Your task to perform on an android device: find snoozed emails in the gmail app Image 0: 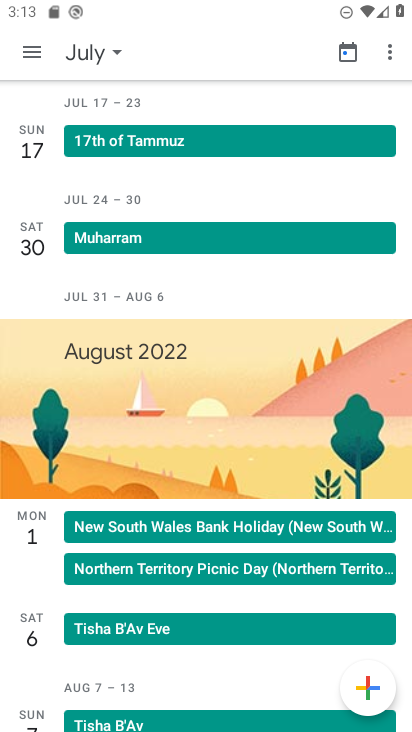
Step 0: press home button
Your task to perform on an android device: find snoozed emails in the gmail app Image 1: 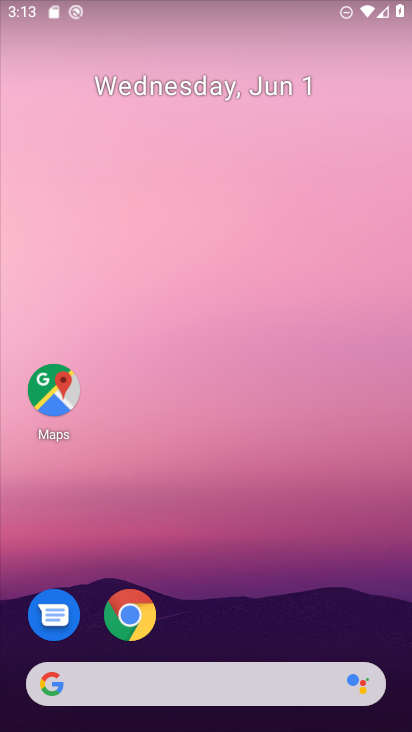
Step 1: drag from (228, 637) to (253, 74)
Your task to perform on an android device: find snoozed emails in the gmail app Image 2: 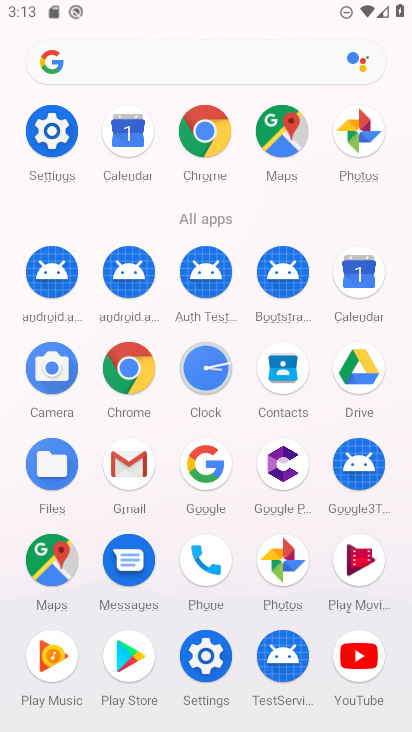
Step 2: click (129, 454)
Your task to perform on an android device: find snoozed emails in the gmail app Image 3: 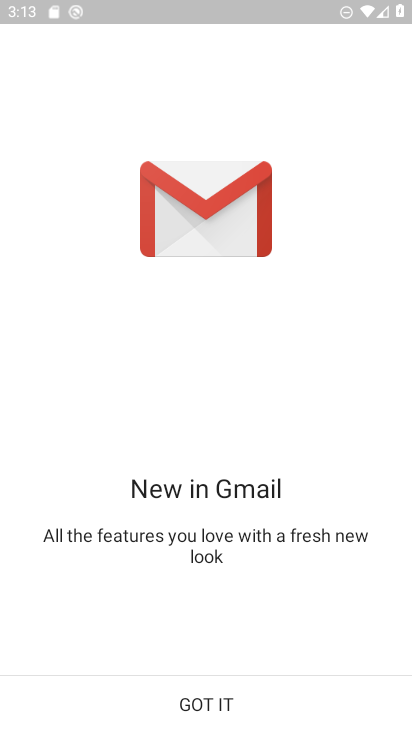
Step 3: click (213, 714)
Your task to perform on an android device: find snoozed emails in the gmail app Image 4: 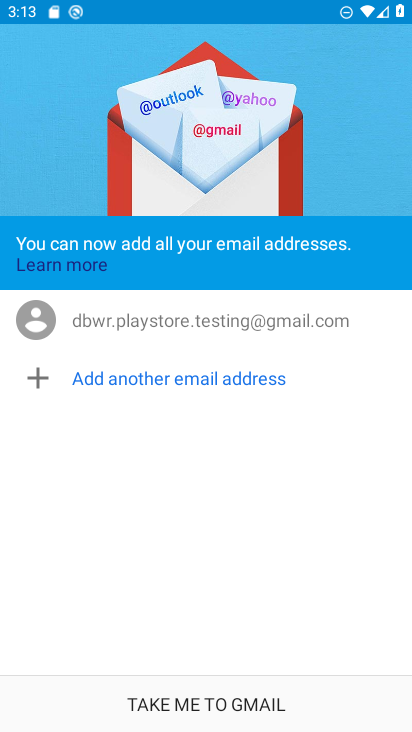
Step 4: click (201, 708)
Your task to perform on an android device: find snoozed emails in the gmail app Image 5: 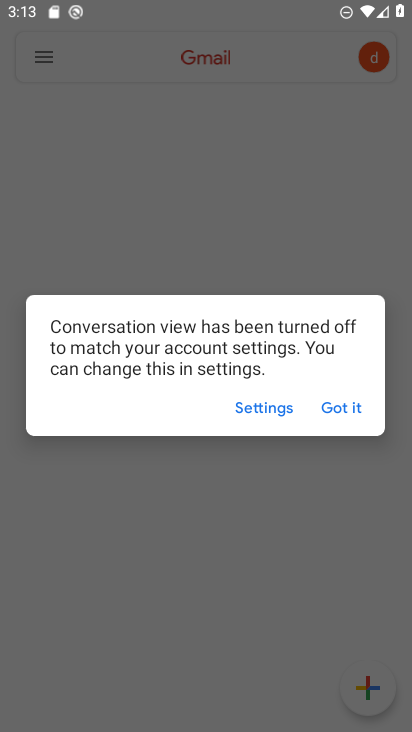
Step 5: click (345, 411)
Your task to perform on an android device: find snoozed emails in the gmail app Image 6: 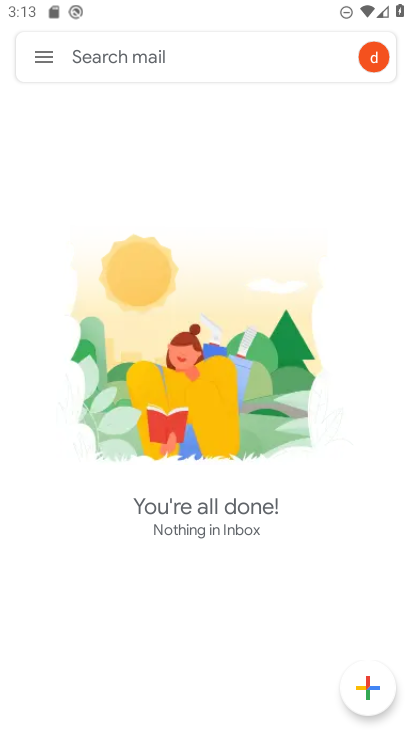
Step 6: click (45, 50)
Your task to perform on an android device: find snoozed emails in the gmail app Image 7: 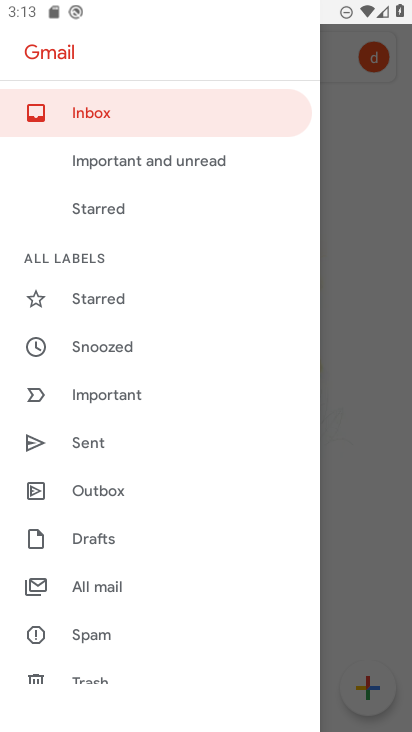
Step 7: click (100, 338)
Your task to perform on an android device: find snoozed emails in the gmail app Image 8: 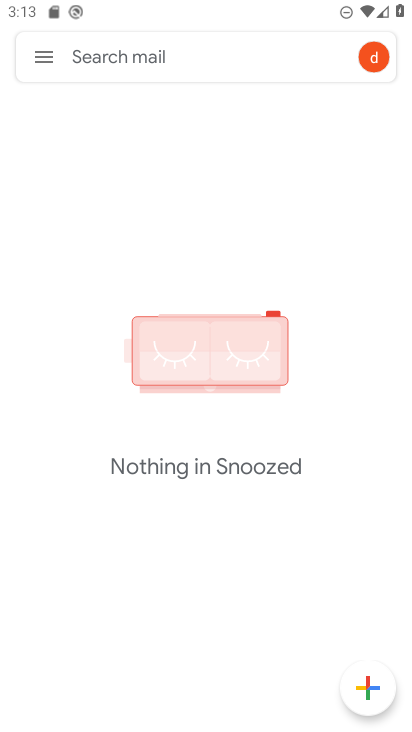
Step 8: task complete